Your task to perform on an android device: open wifi settings Image 0: 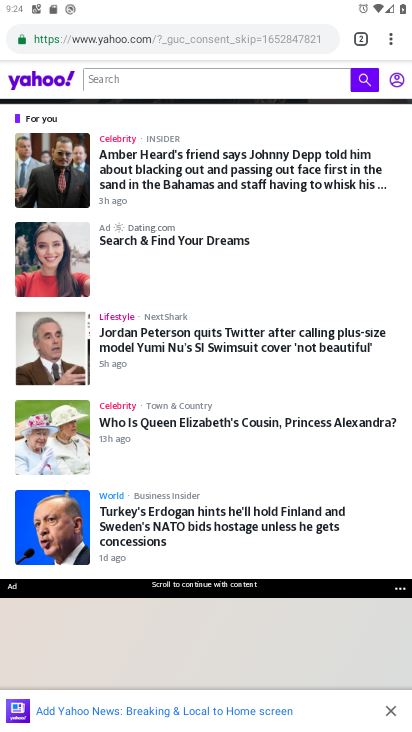
Step 0: press home button
Your task to perform on an android device: open wifi settings Image 1: 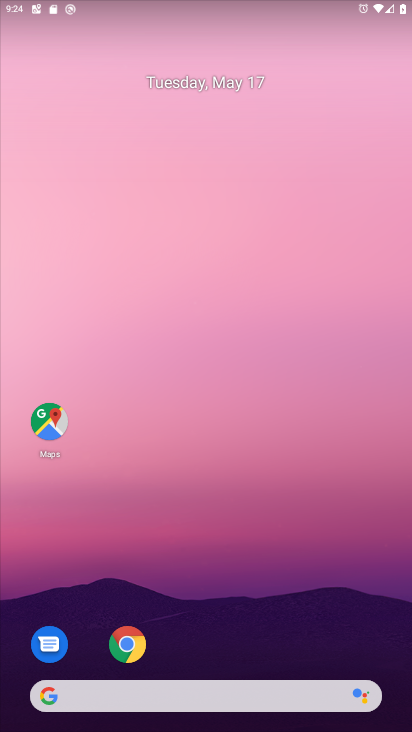
Step 1: drag from (208, 665) to (246, 98)
Your task to perform on an android device: open wifi settings Image 2: 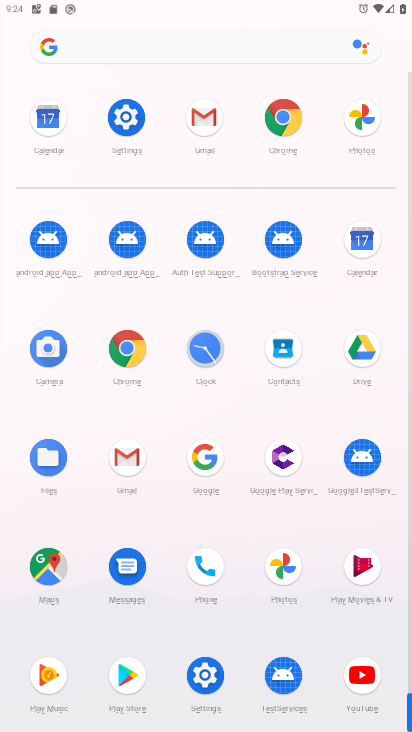
Step 2: click (124, 107)
Your task to perform on an android device: open wifi settings Image 3: 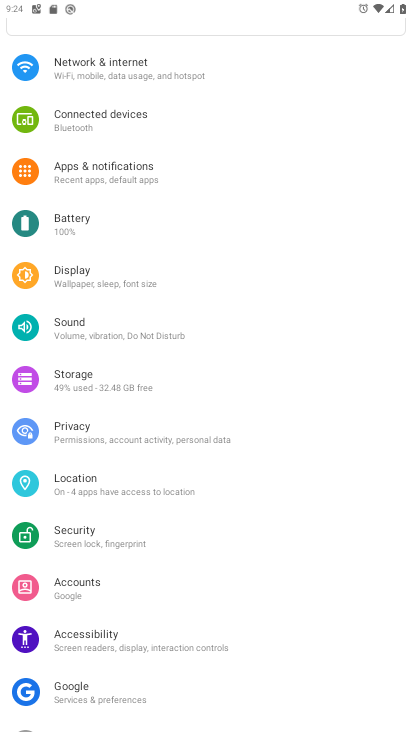
Step 3: click (152, 58)
Your task to perform on an android device: open wifi settings Image 4: 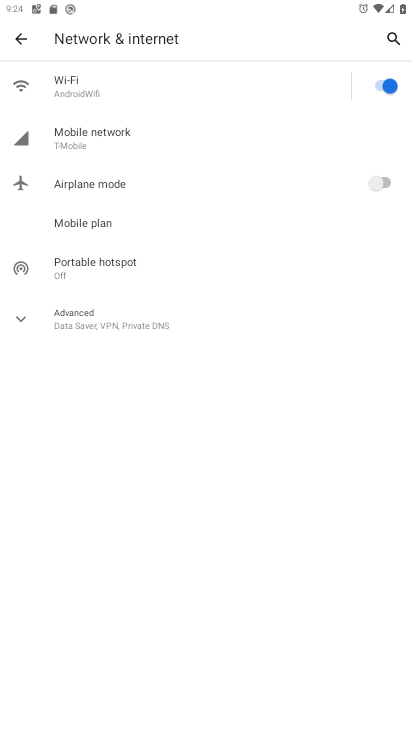
Step 4: click (116, 84)
Your task to perform on an android device: open wifi settings Image 5: 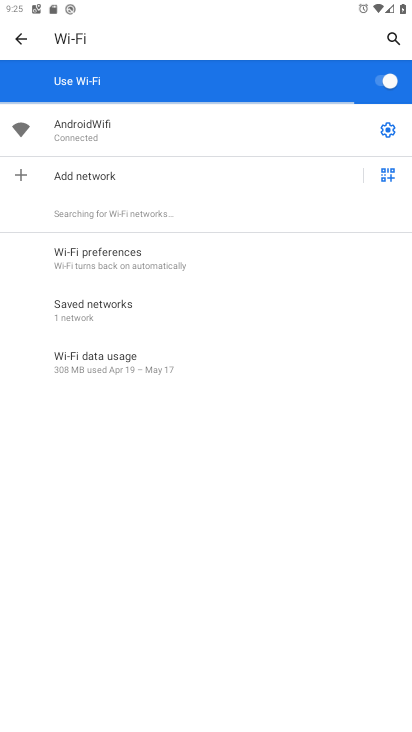
Step 5: task complete